Your task to perform on an android device: Open calendar and show me the first week of next month Image 0: 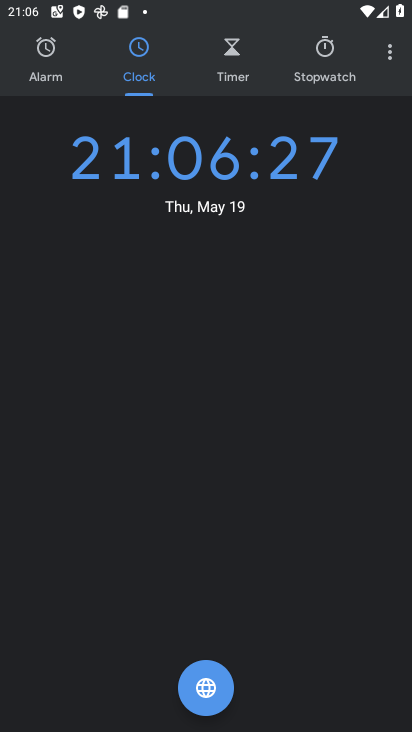
Step 0: press home button
Your task to perform on an android device: Open calendar and show me the first week of next month Image 1: 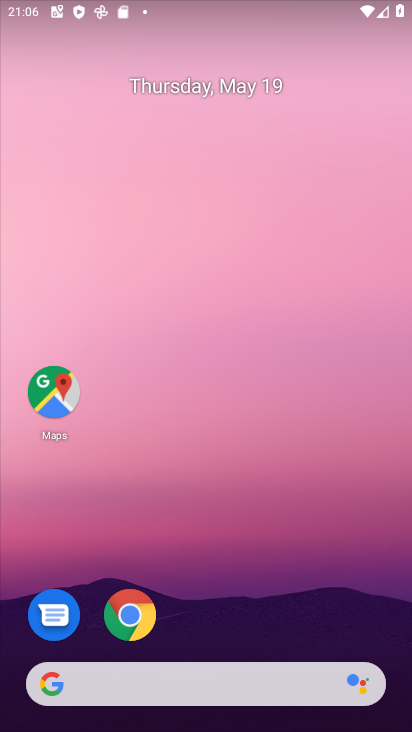
Step 1: drag from (253, 551) to (248, 62)
Your task to perform on an android device: Open calendar and show me the first week of next month Image 2: 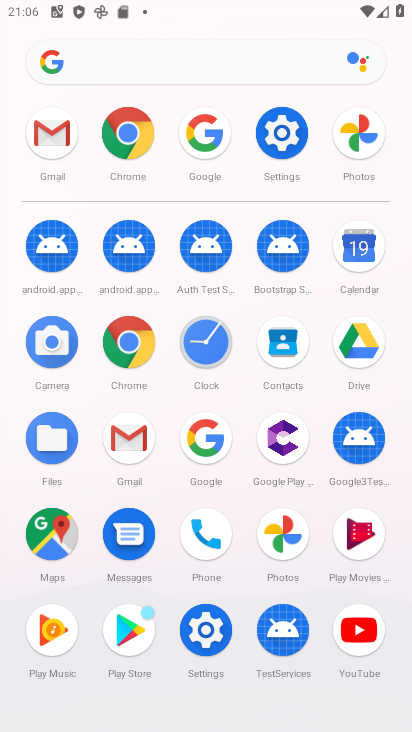
Step 2: click (362, 236)
Your task to perform on an android device: Open calendar and show me the first week of next month Image 3: 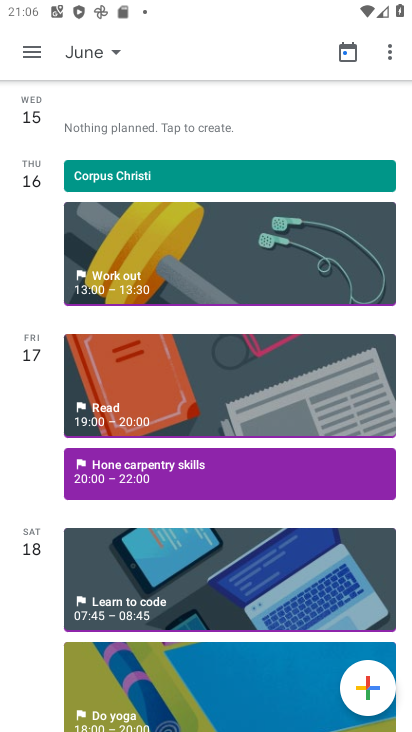
Step 3: click (107, 54)
Your task to perform on an android device: Open calendar and show me the first week of next month Image 4: 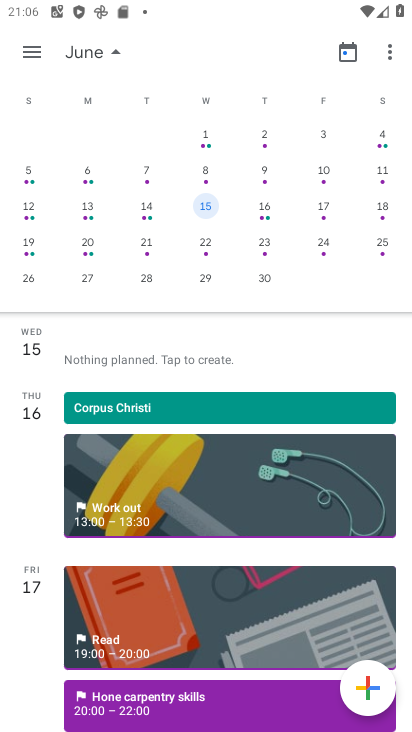
Step 4: click (259, 141)
Your task to perform on an android device: Open calendar and show me the first week of next month Image 5: 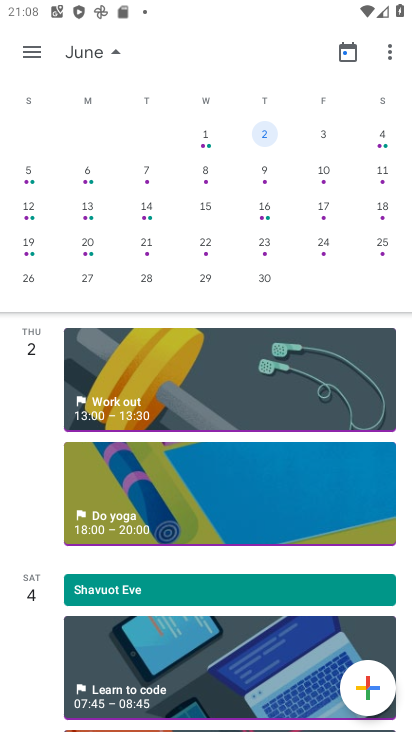
Step 5: task complete